Your task to perform on an android device: What is the recent news? Image 0: 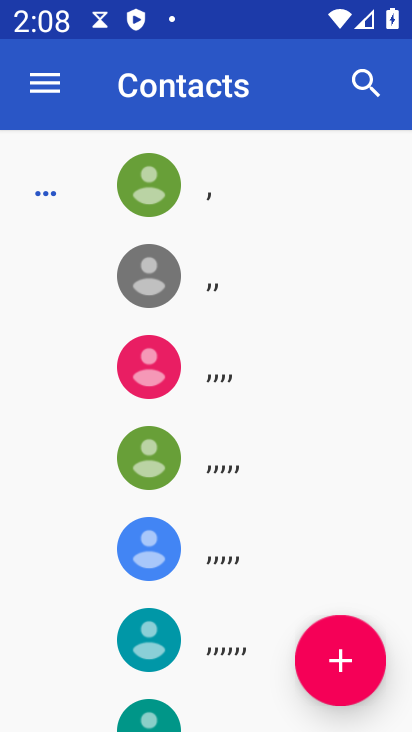
Step 0: press back button
Your task to perform on an android device: What is the recent news? Image 1: 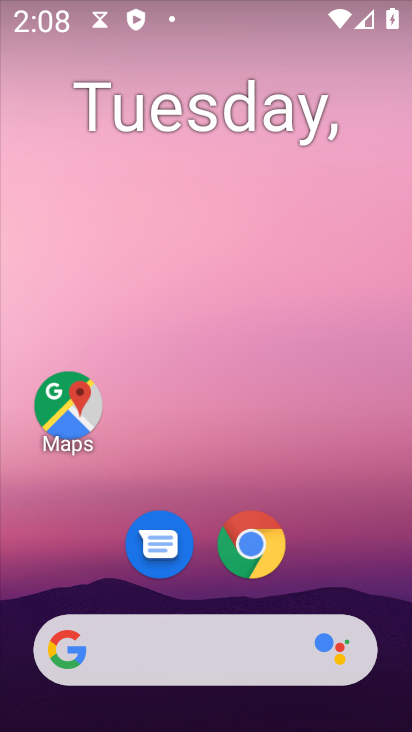
Step 1: drag from (347, 529) to (277, 50)
Your task to perform on an android device: What is the recent news? Image 2: 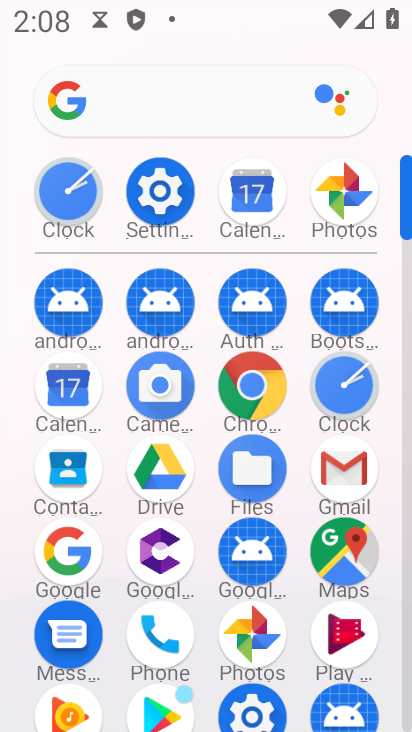
Step 2: drag from (5, 590) to (23, 300)
Your task to perform on an android device: What is the recent news? Image 3: 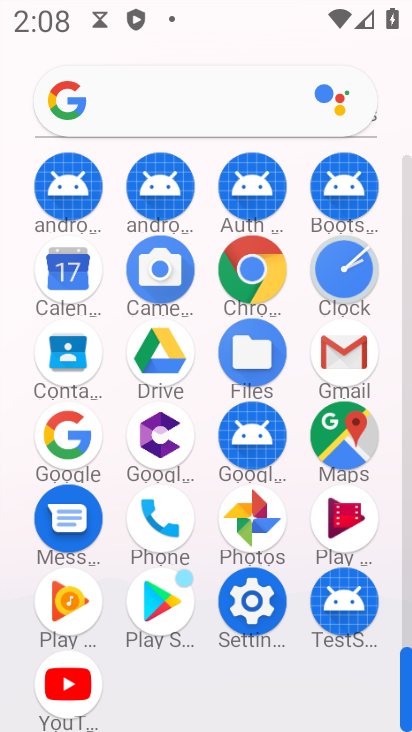
Step 3: click (249, 263)
Your task to perform on an android device: What is the recent news? Image 4: 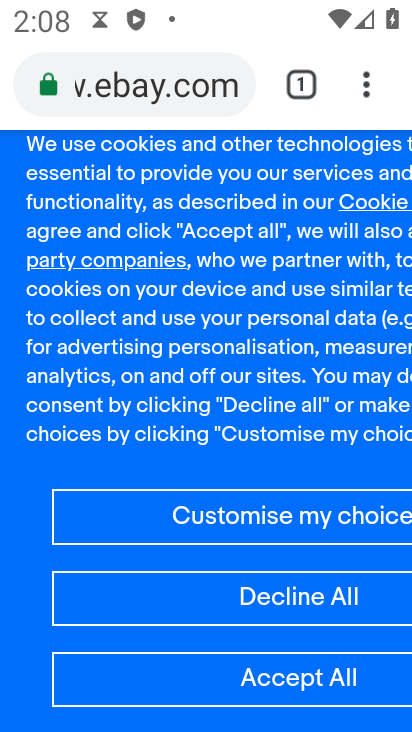
Step 4: click (165, 77)
Your task to perform on an android device: What is the recent news? Image 5: 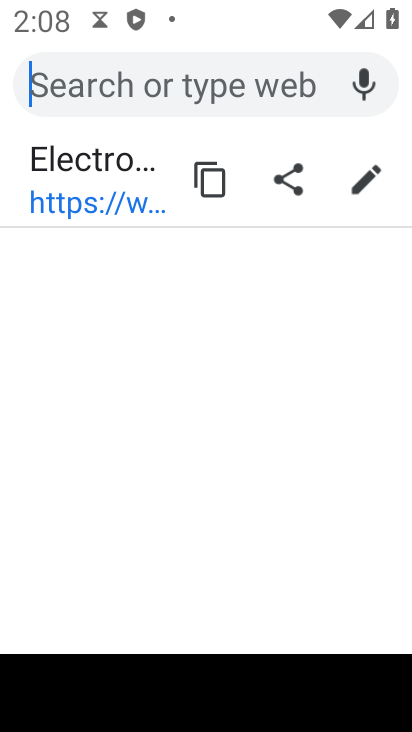
Step 5: type "What is the recent news?"
Your task to perform on an android device: What is the recent news? Image 6: 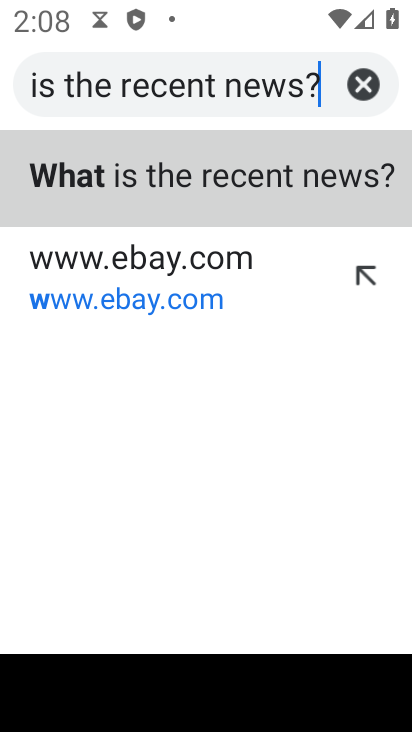
Step 6: type ""
Your task to perform on an android device: What is the recent news? Image 7: 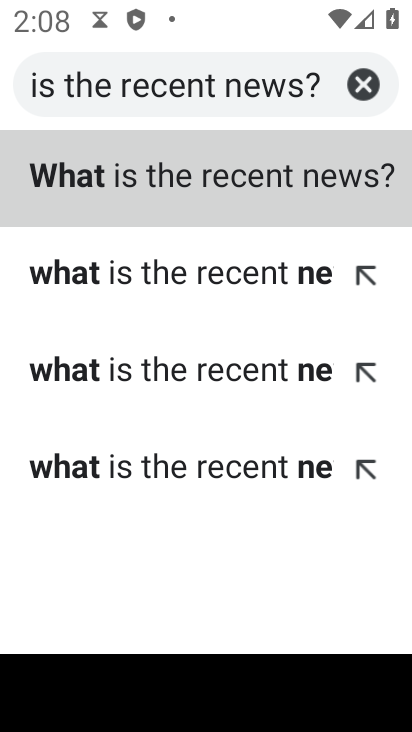
Step 7: click (211, 176)
Your task to perform on an android device: What is the recent news? Image 8: 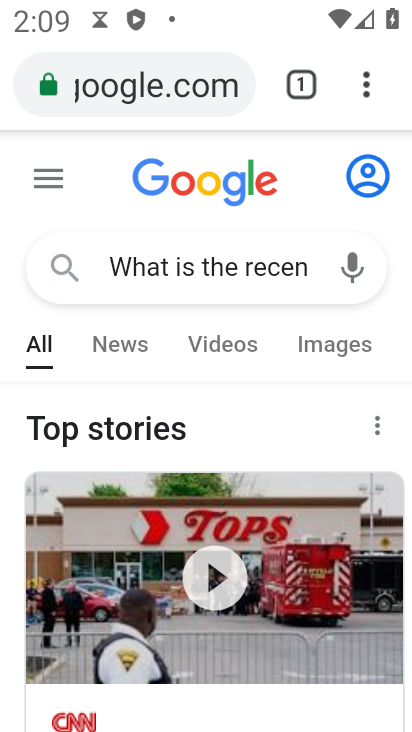
Step 8: task complete